Your task to perform on an android device: Search for good Thai restaurants Image 0: 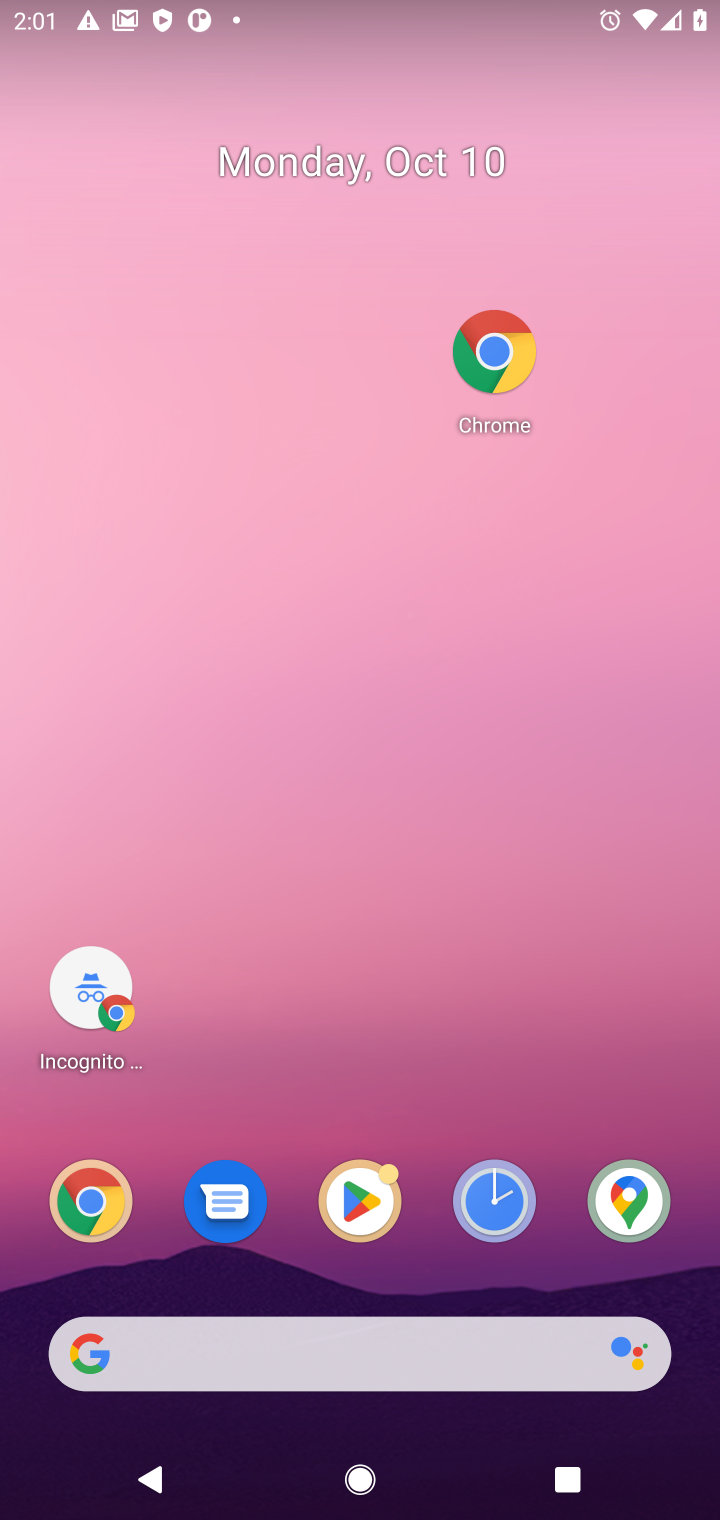
Step 0: click (492, 357)
Your task to perform on an android device: Search for good Thai restaurants Image 1: 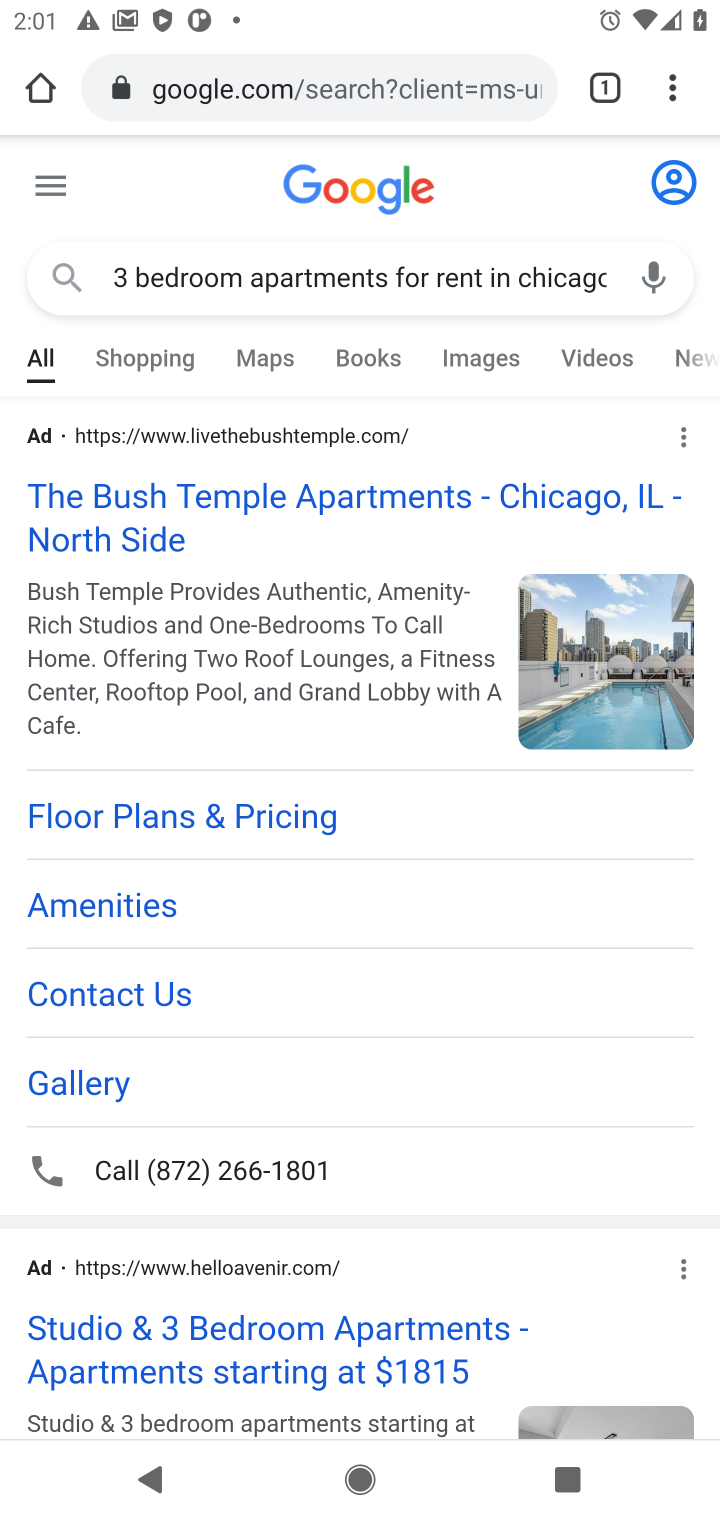
Step 1: click (473, 277)
Your task to perform on an android device: Search for good Thai restaurants Image 2: 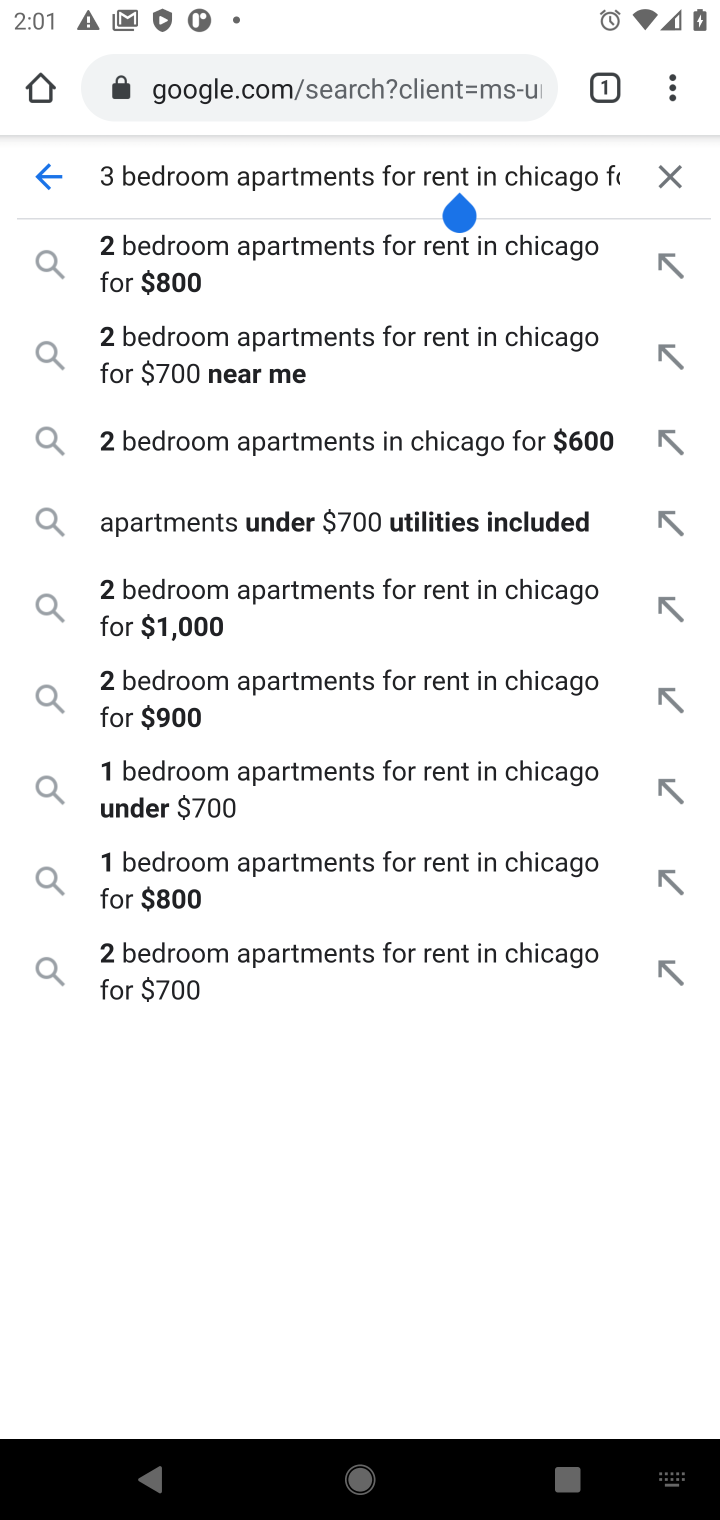
Step 2: click (667, 178)
Your task to perform on an android device: Search for good Thai restaurants Image 3: 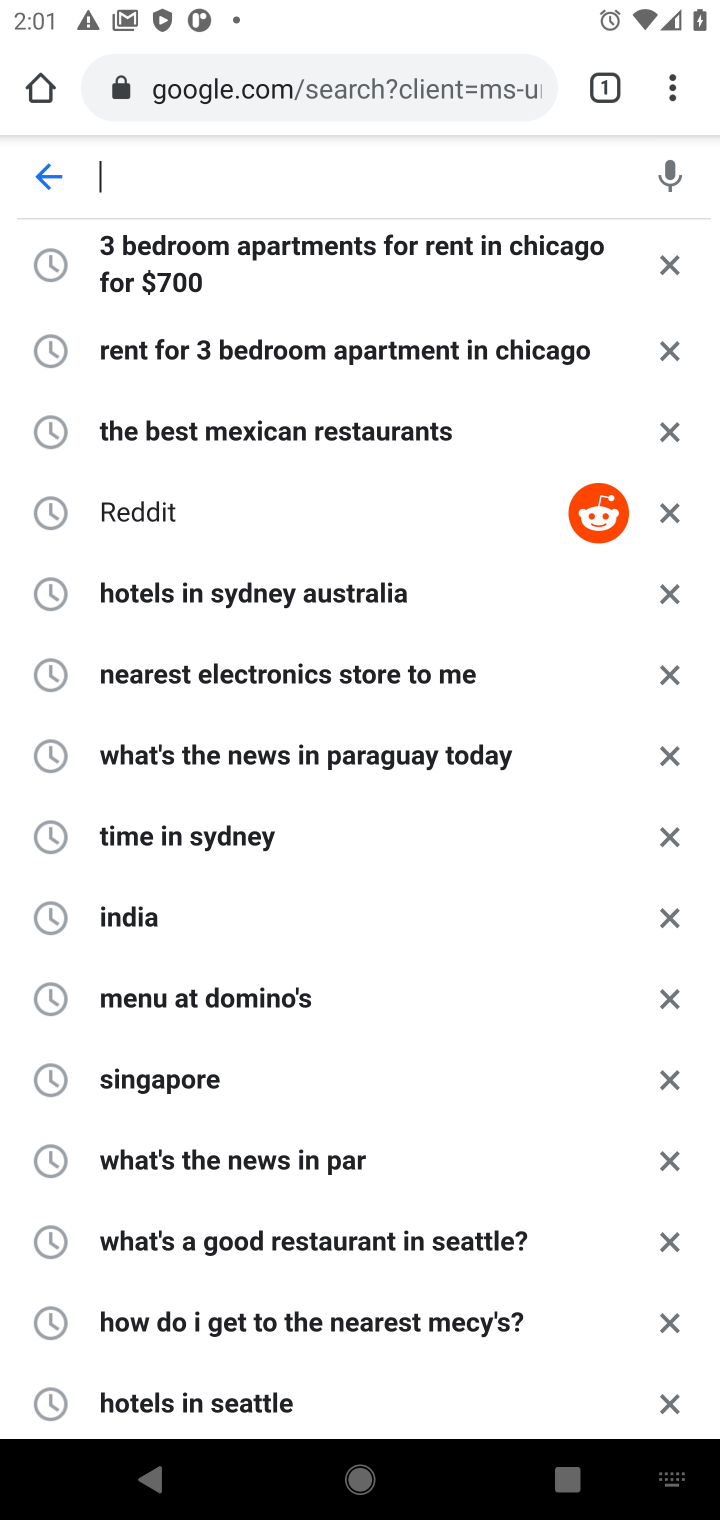
Step 3: type "good Thai restaurants"
Your task to perform on an android device: Search for good Thai restaurants Image 4: 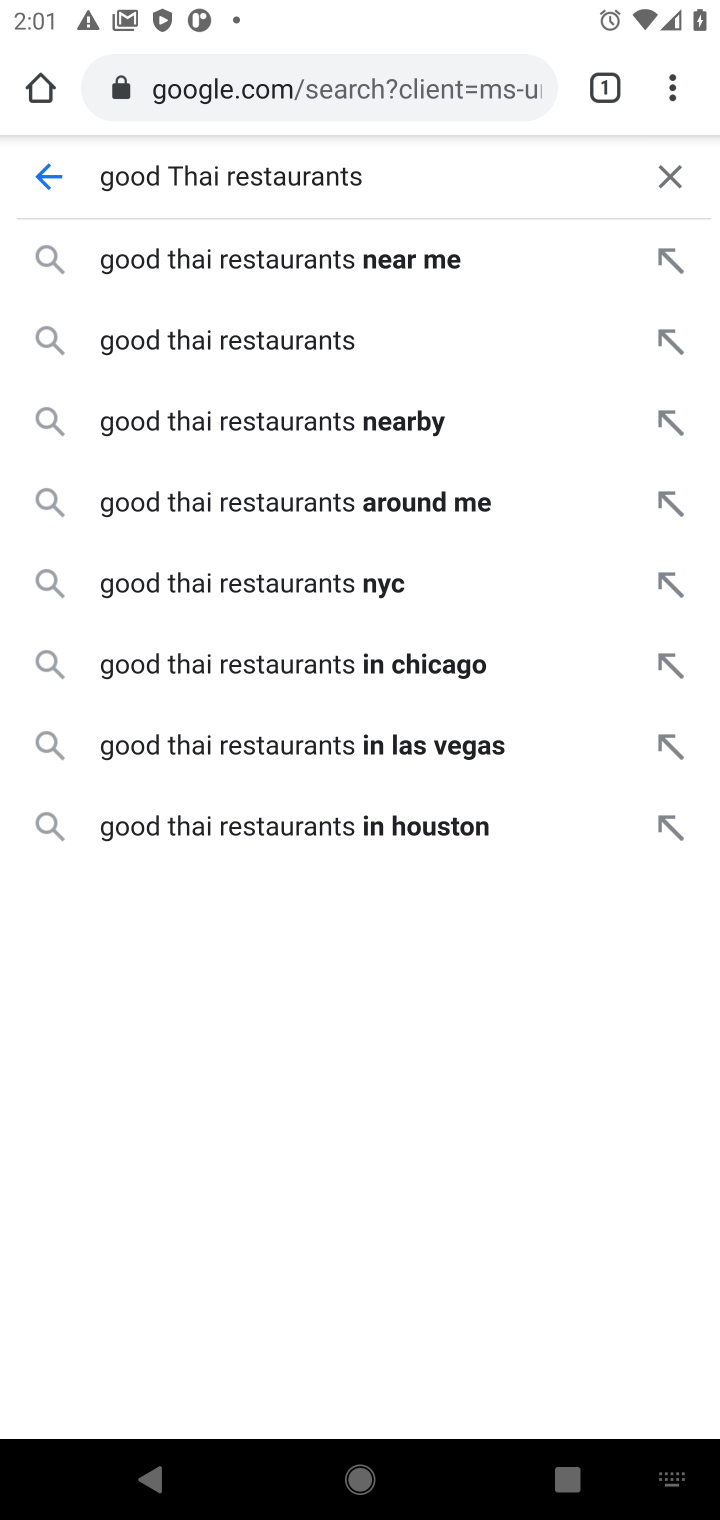
Step 4: click (213, 179)
Your task to perform on an android device: Search for good Thai restaurants Image 5: 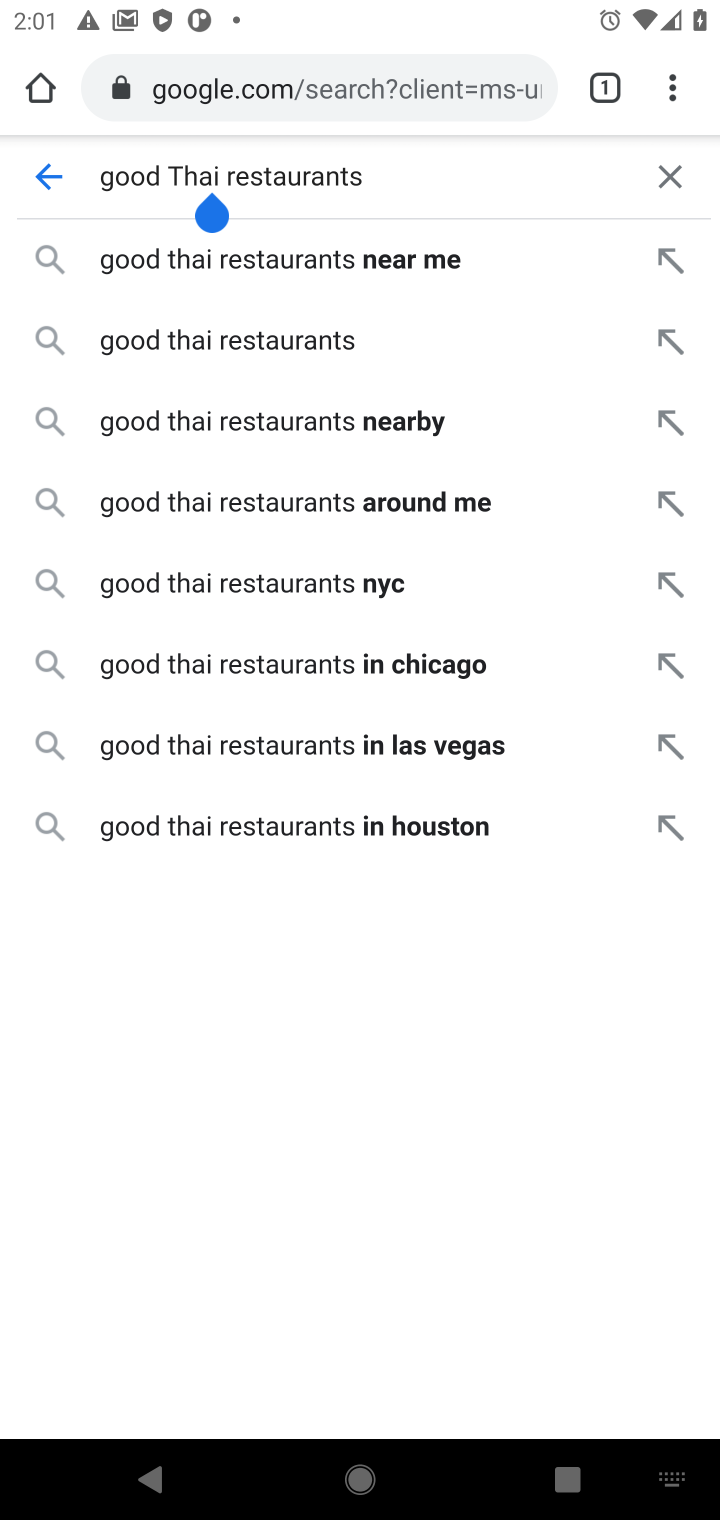
Step 5: click (220, 264)
Your task to perform on an android device: Search for good Thai restaurants Image 6: 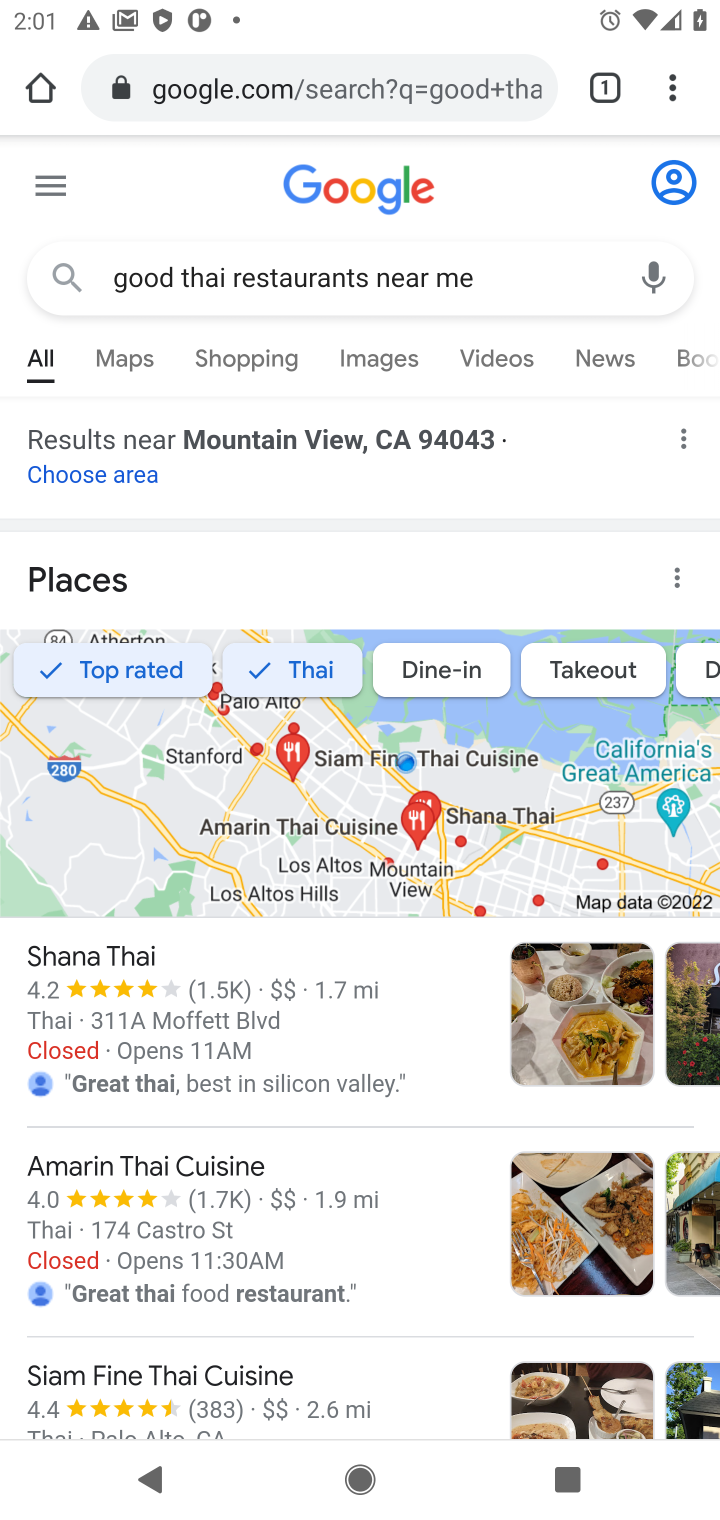
Step 6: task complete